Your task to perform on an android device: Show me the alarms in the clock app Image 0: 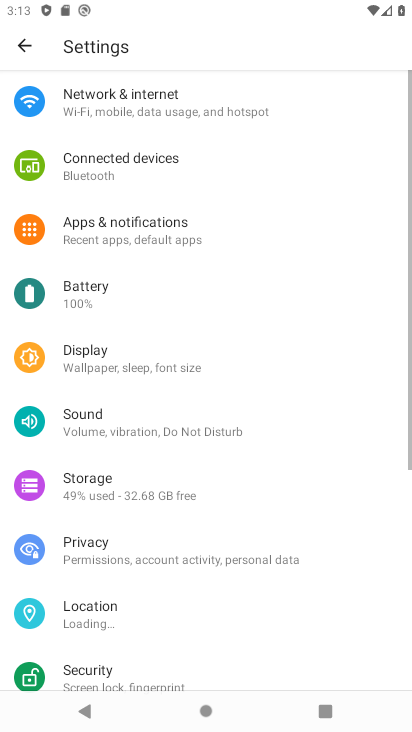
Step 0: press back button
Your task to perform on an android device: Show me the alarms in the clock app Image 1: 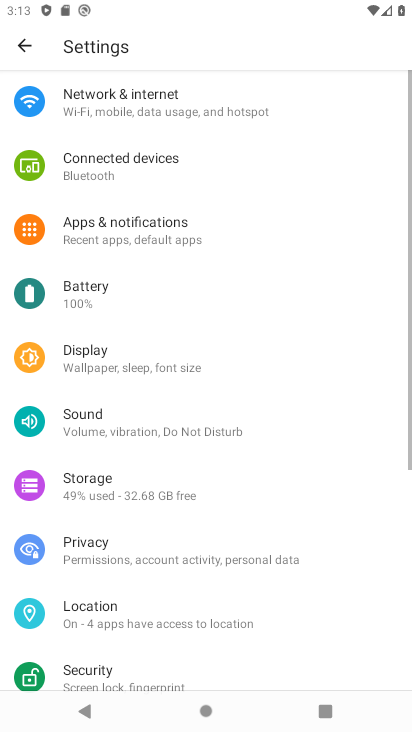
Step 1: click (28, 42)
Your task to perform on an android device: Show me the alarms in the clock app Image 2: 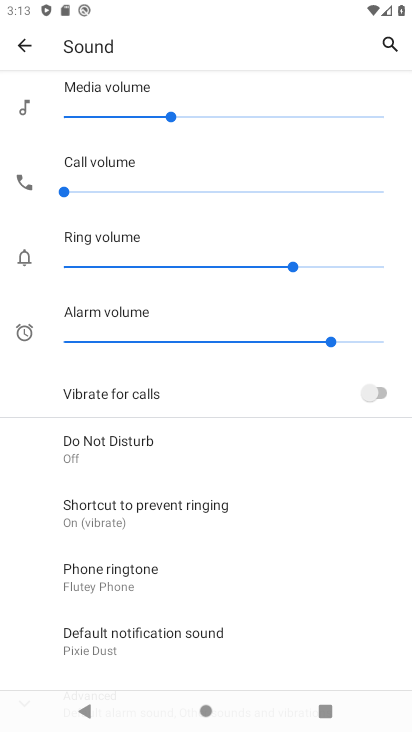
Step 2: press back button
Your task to perform on an android device: Show me the alarms in the clock app Image 3: 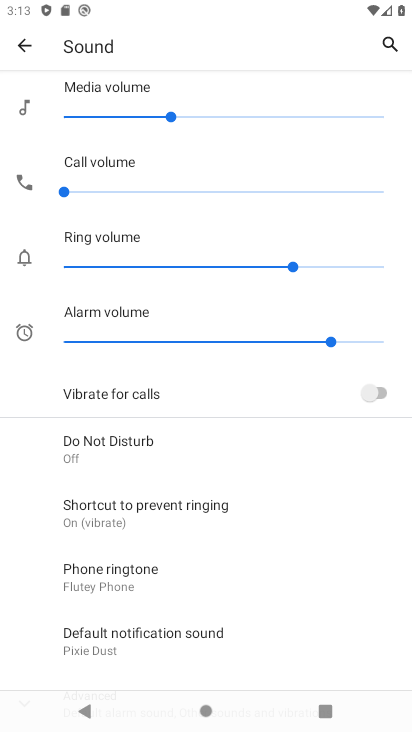
Step 3: press back button
Your task to perform on an android device: Show me the alarms in the clock app Image 4: 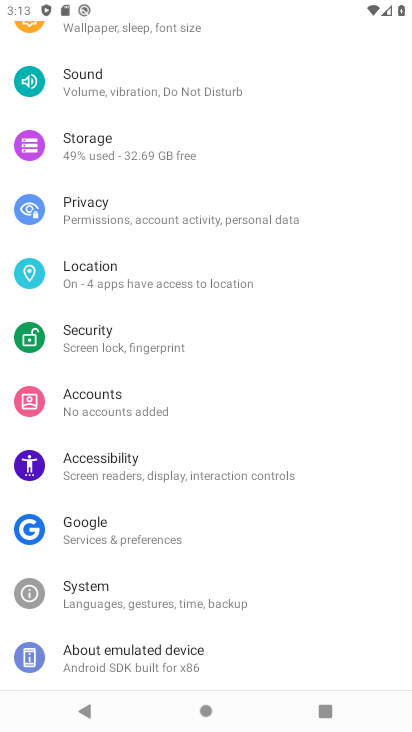
Step 4: press back button
Your task to perform on an android device: Show me the alarms in the clock app Image 5: 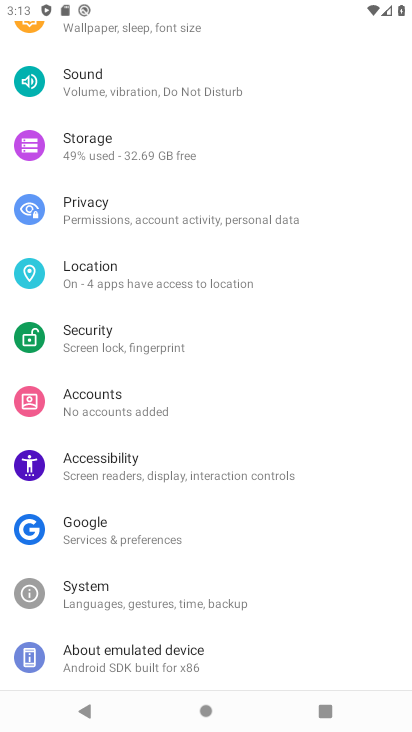
Step 5: click (18, 44)
Your task to perform on an android device: Show me the alarms in the clock app Image 6: 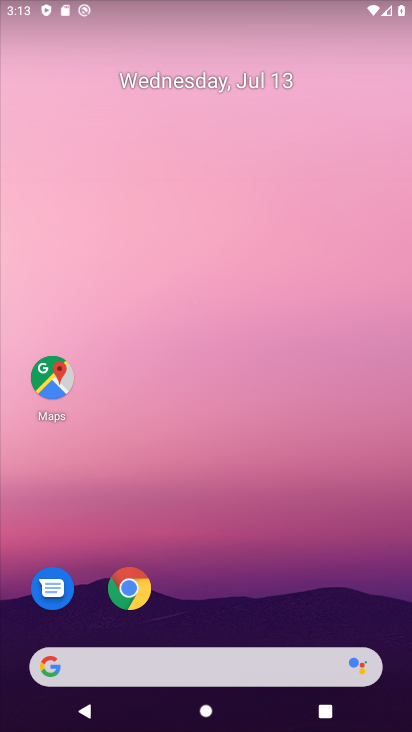
Step 6: drag from (265, 673) to (273, 246)
Your task to perform on an android device: Show me the alarms in the clock app Image 7: 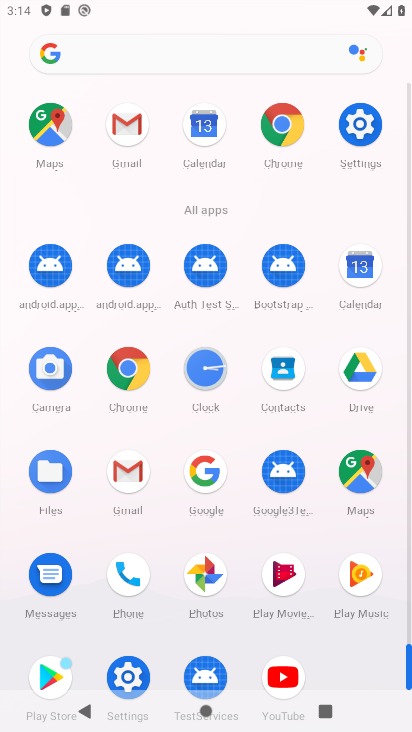
Step 7: click (186, 369)
Your task to perform on an android device: Show me the alarms in the clock app Image 8: 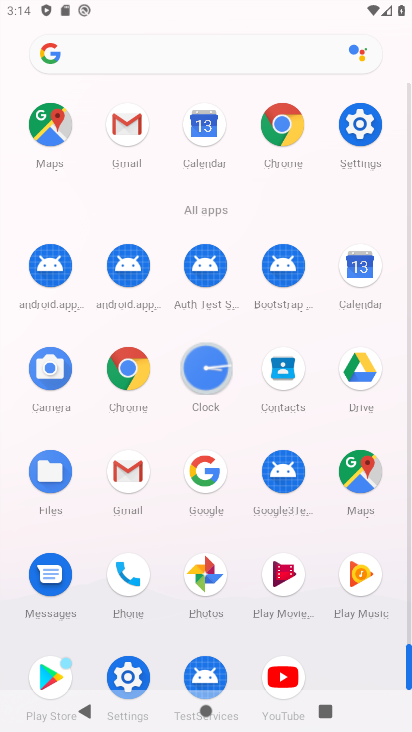
Step 8: click (188, 368)
Your task to perform on an android device: Show me the alarms in the clock app Image 9: 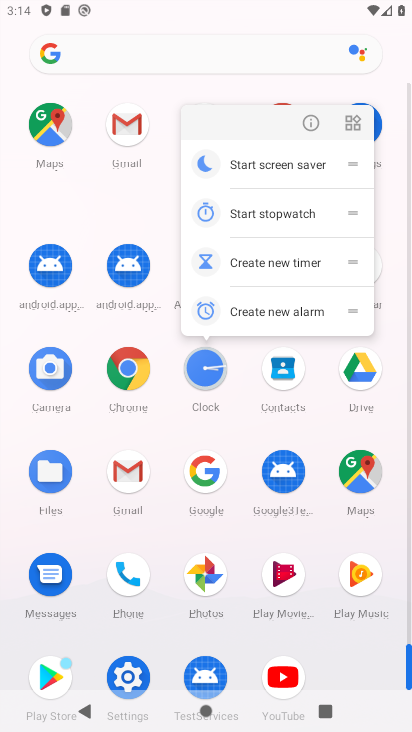
Step 9: click (217, 383)
Your task to perform on an android device: Show me the alarms in the clock app Image 10: 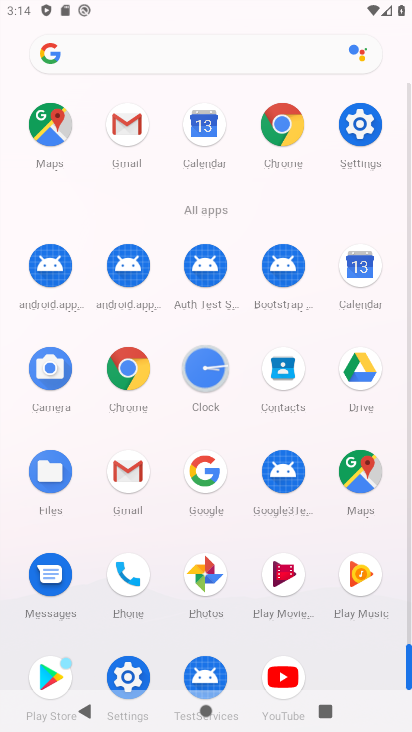
Step 10: click (212, 378)
Your task to perform on an android device: Show me the alarms in the clock app Image 11: 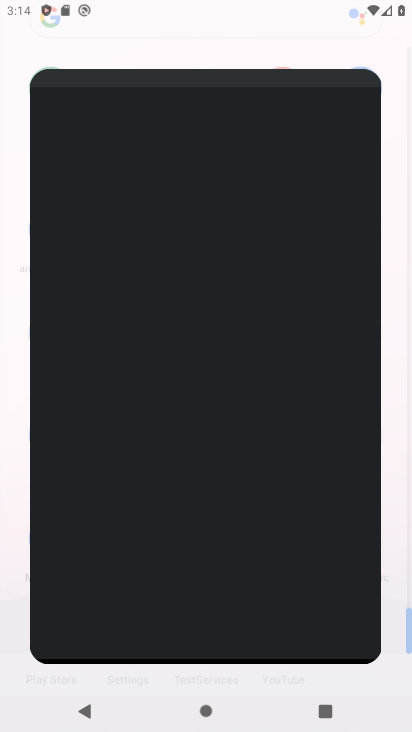
Step 11: click (213, 373)
Your task to perform on an android device: Show me the alarms in the clock app Image 12: 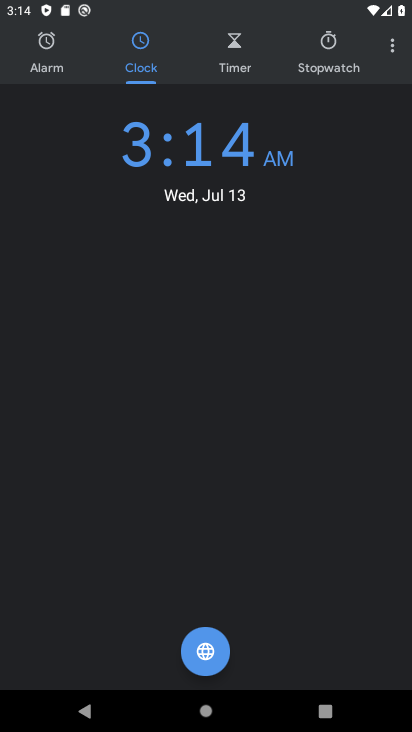
Step 12: click (59, 50)
Your task to perform on an android device: Show me the alarms in the clock app Image 13: 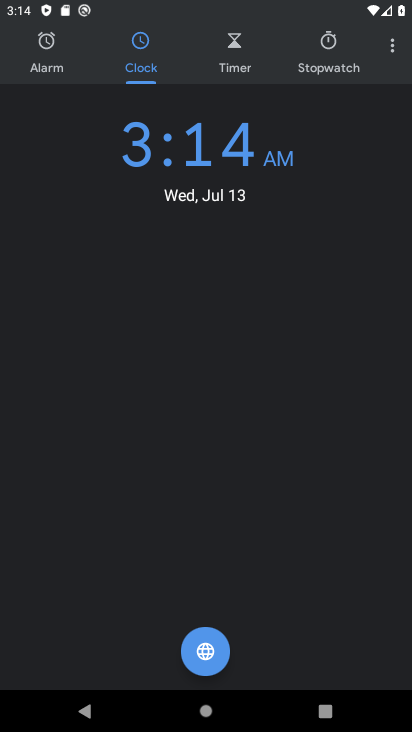
Step 13: click (59, 50)
Your task to perform on an android device: Show me the alarms in the clock app Image 14: 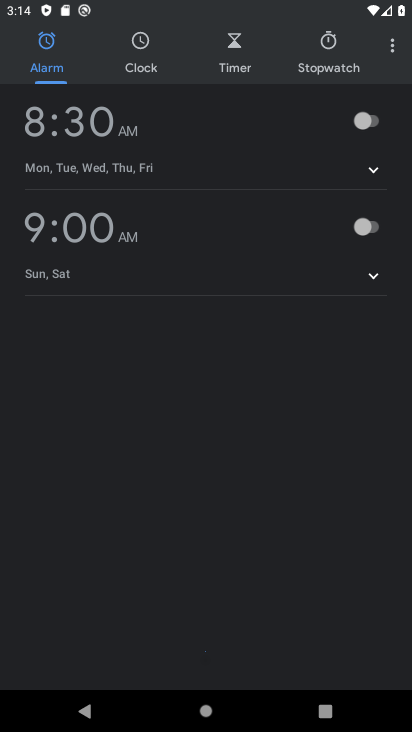
Step 14: click (55, 48)
Your task to perform on an android device: Show me the alarms in the clock app Image 15: 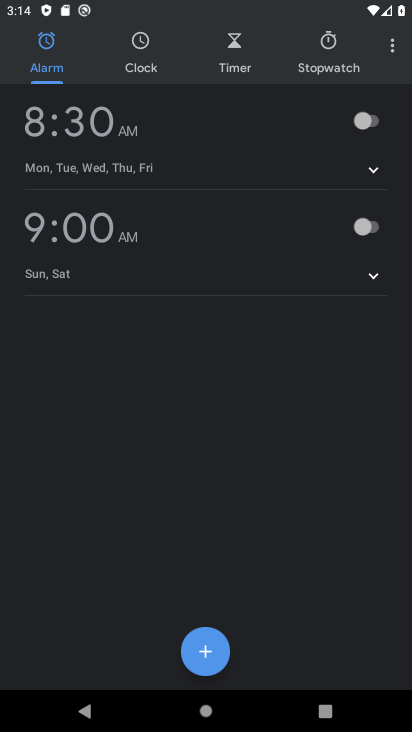
Step 15: click (365, 123)
Your task to perform on an android device: Show me the alarms in the clock app Image 16: 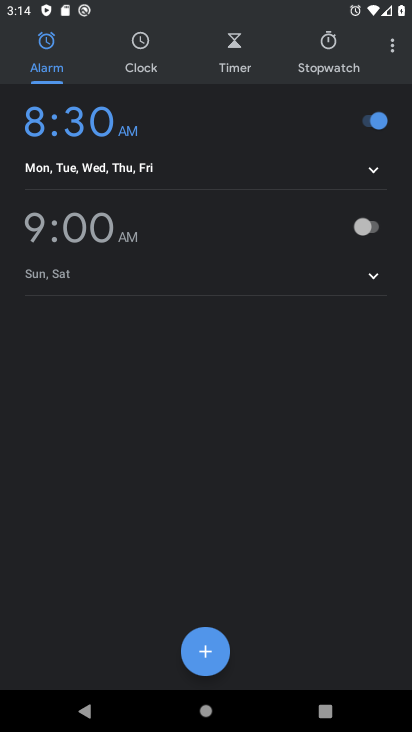
Step 16: task complete